Your task to perform on an android device: open sync settings in chrome Image 0: 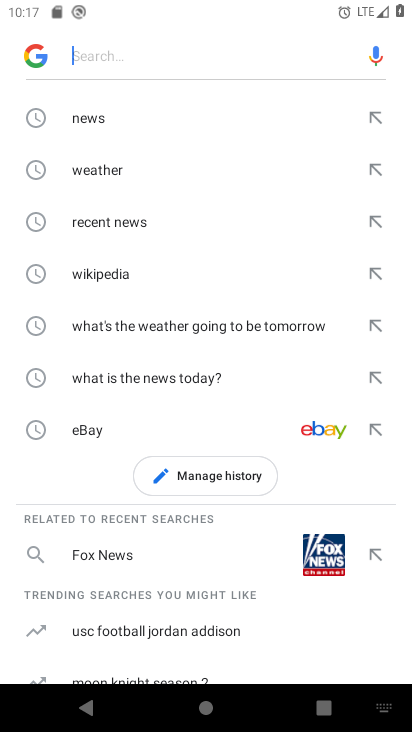
Step 0: press home button
Your task to perform on an android device: open sync settings in chrome Image 1: 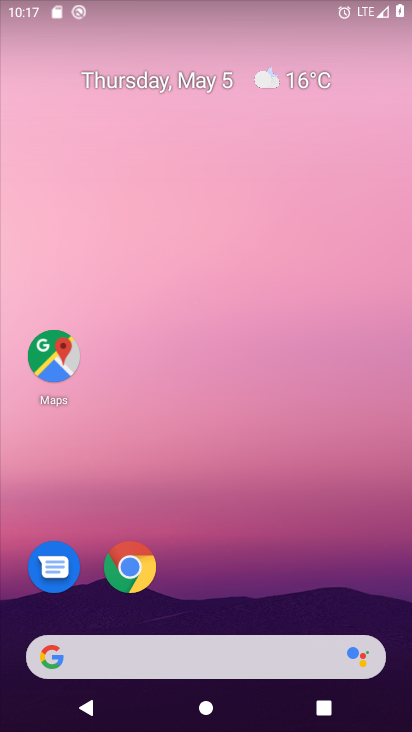
Step 1: drag from (257, 533) to (316, 75)
Your task to perform on an android device: open sync settings in chrome Image 2: 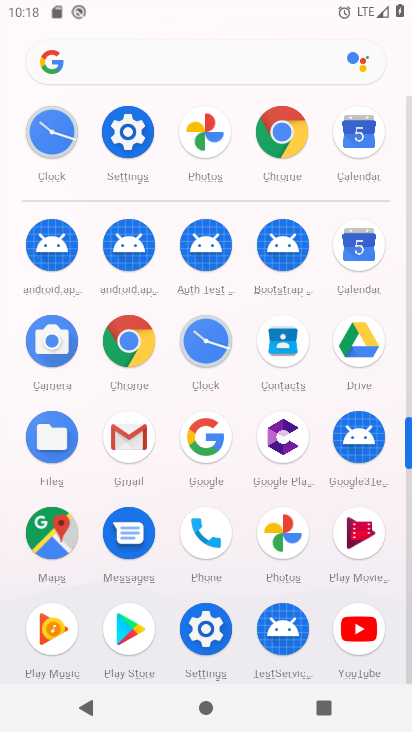
Step 2: click (284, 134)
Your task to perform on an android device: open sync settings in chrome Image 3: 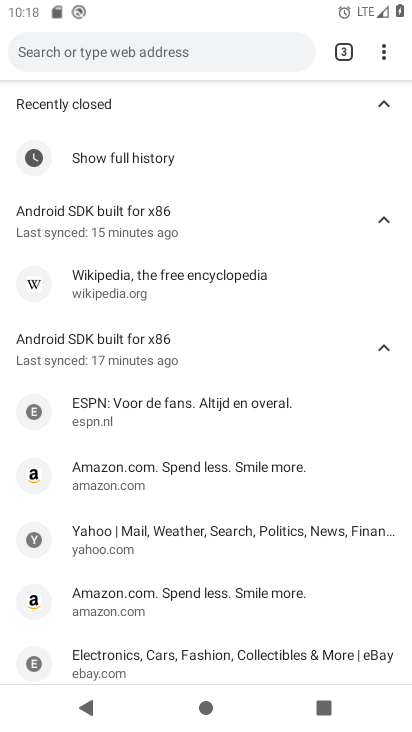
Step 3: drag from (382, 55) to (252, 429)
Your task to perform on an android device: open sync settings in chrome Image 4: 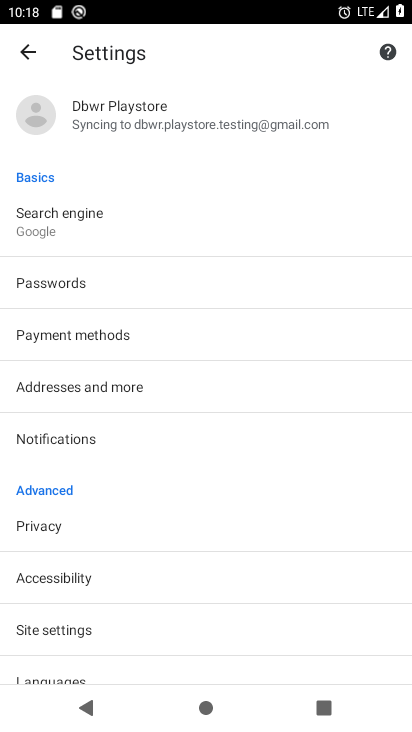
Step 4: click (208, 112)
Your task to perform on an android device: open sync settings in chrome Image 5: 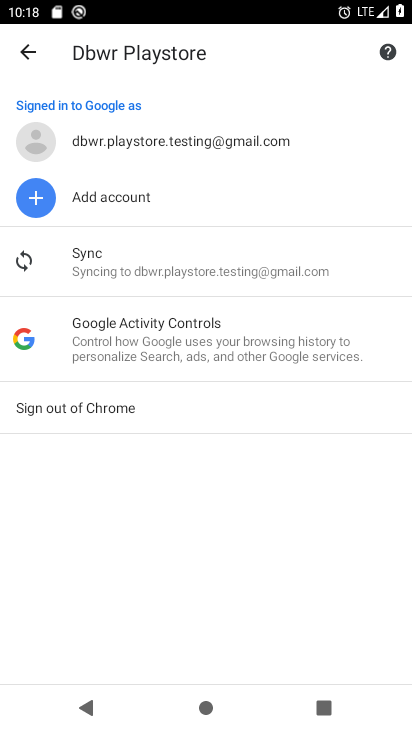
Step 5: click (134, 265)
Your task to perform on an android device: open sync settings in chrome Image 6: 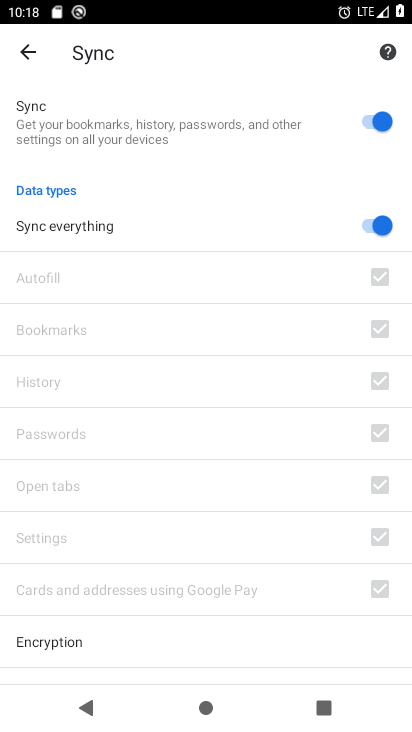
Step 6: task complete